Your task to perform on an android device: turn off airplane mode Image 0: 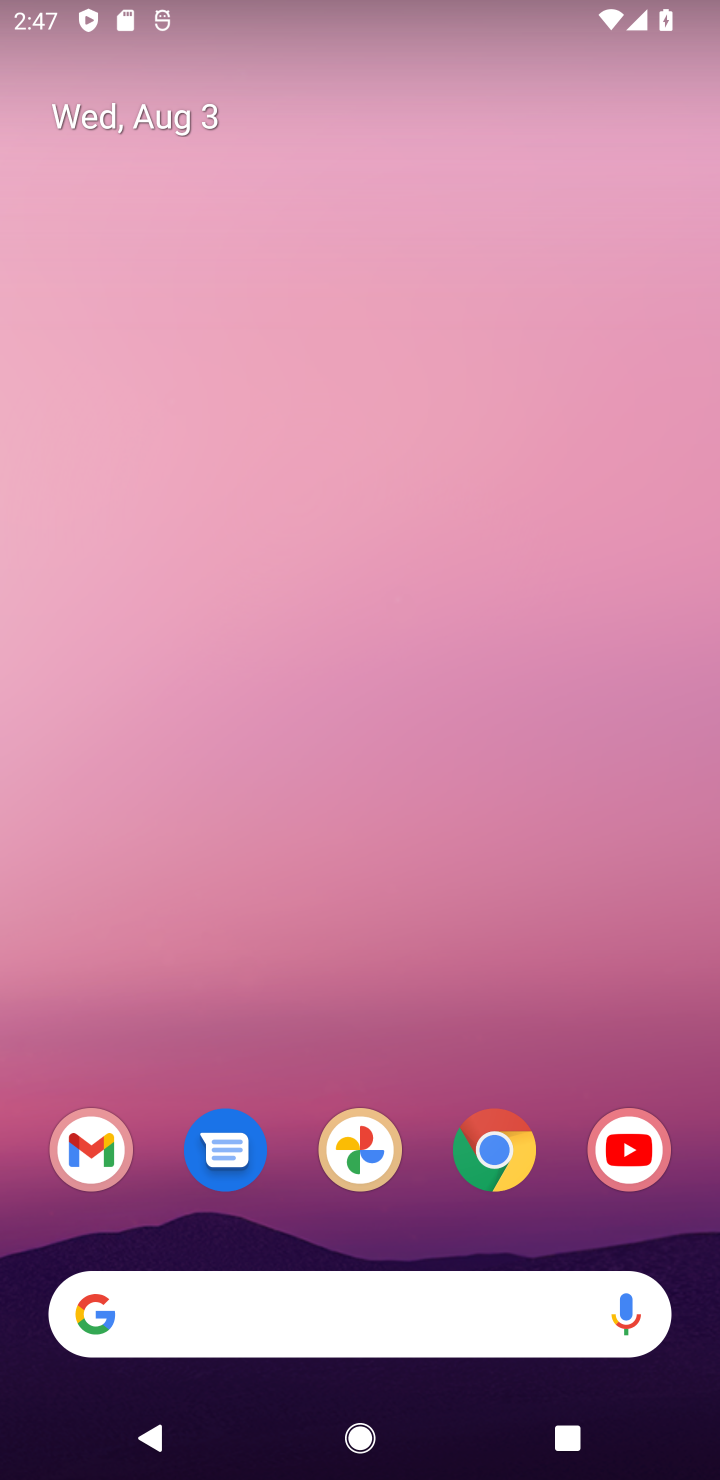
Step 0: drag from (369, 1228) to (394, 207)
Your task to perform on an android device: turn off airplane mode Image 1: 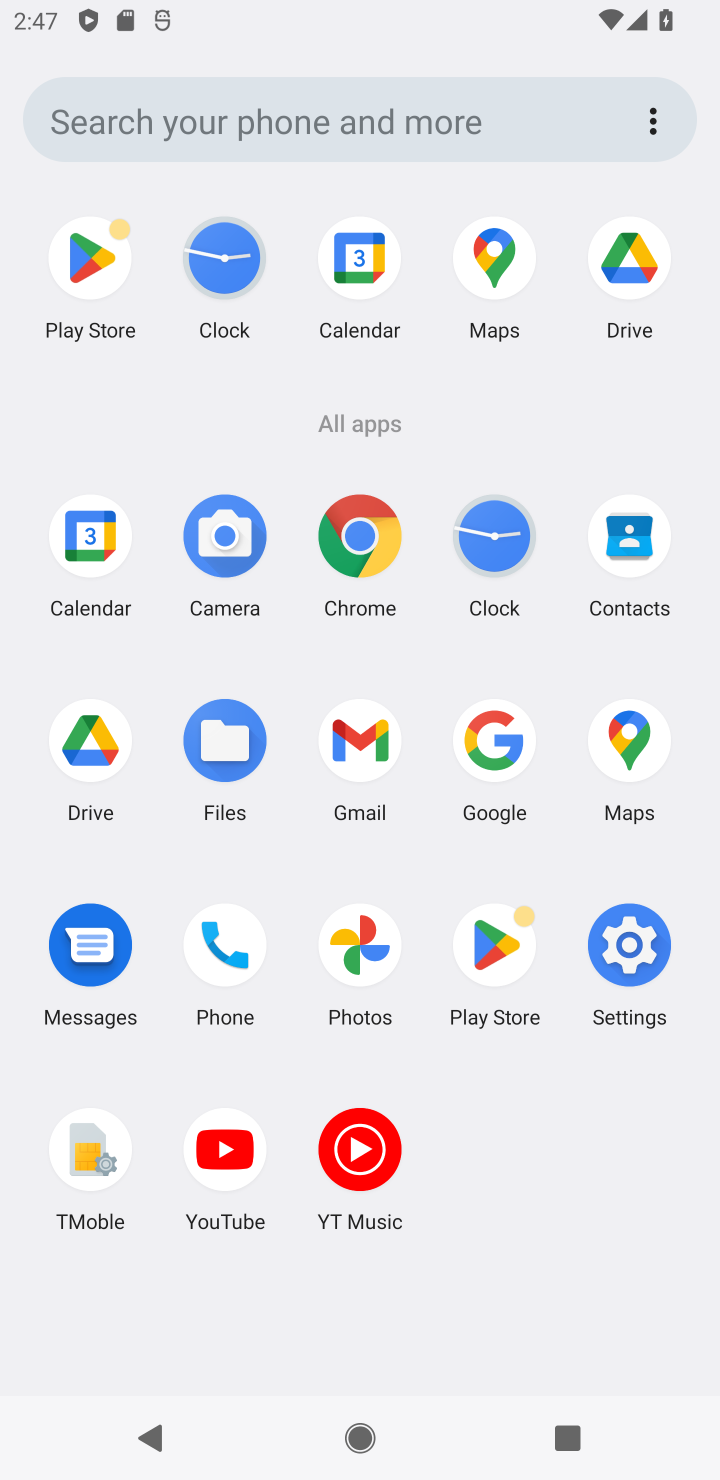
Step 1: click (629, 944)
Your task to perform on an android device: turn off airplane mode Image 2: 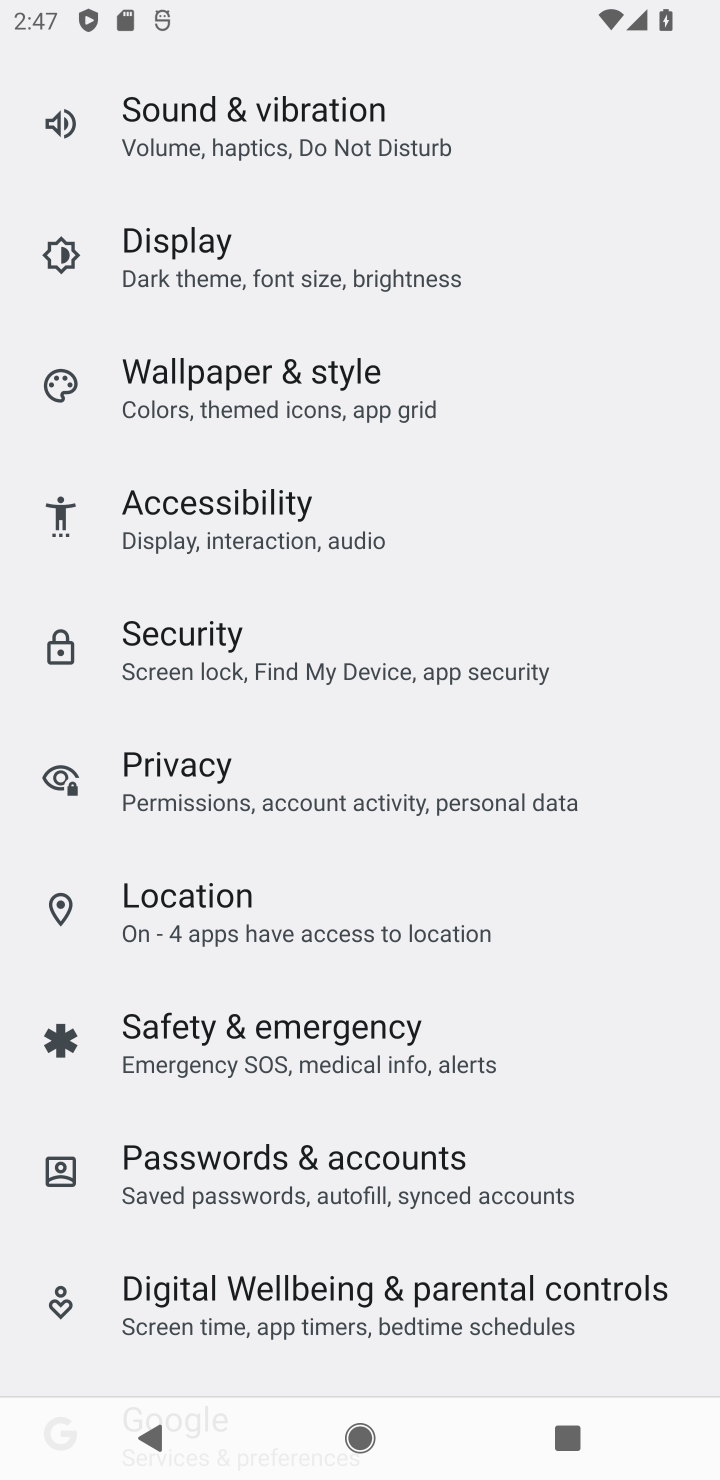
Step 2: drag from (319, 212) to (306, 930)
Your task to perform on an android device: turn off airplane mode Image 3: 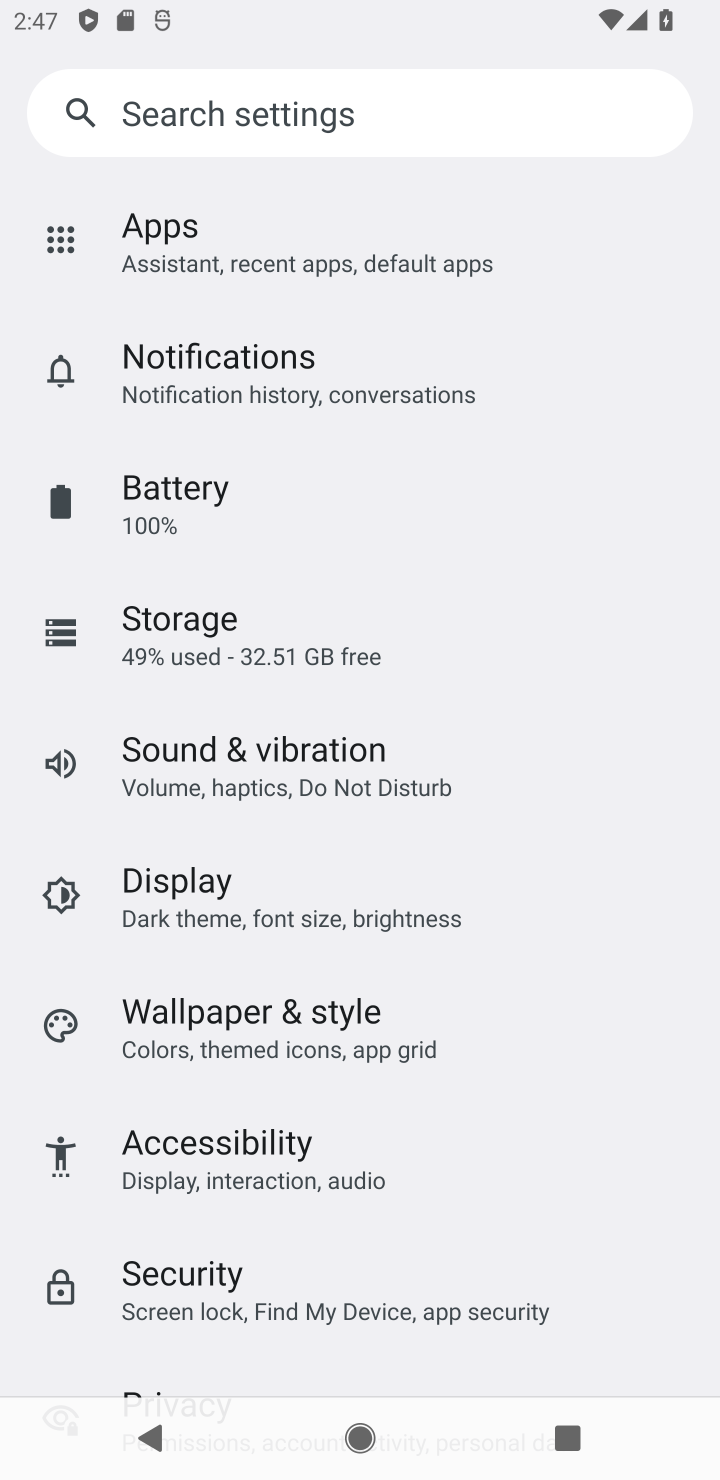
Step 3: drag from (324, 351) to (382, 1113)
Your task to perform on an android device: turn off airplane mode Image 4: 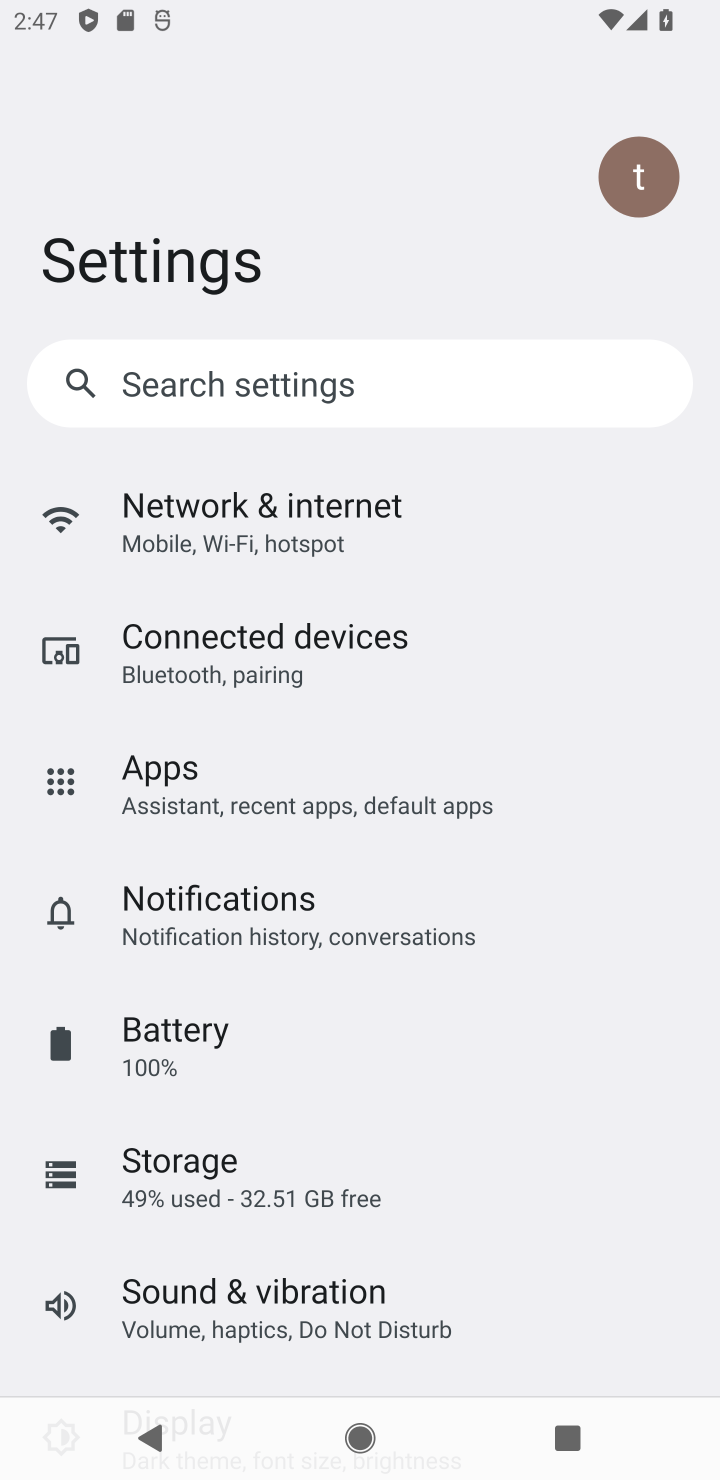
Step 4: click (286, 510)
Your task to perform on an android device: turn off airplane mode Image 5: 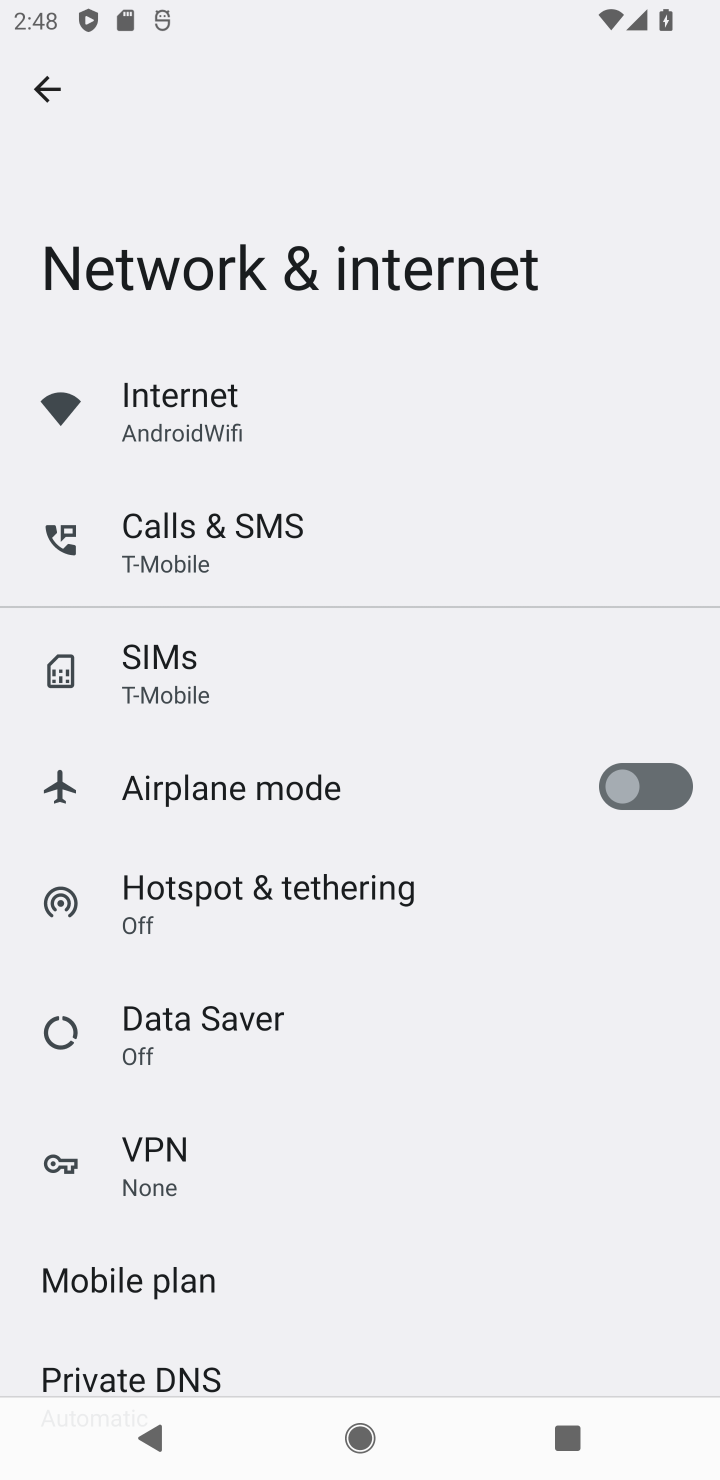
Step 5: task complete